Your task to perform on an android device: open app "Upside-Cash back on gas & food" Image 0: 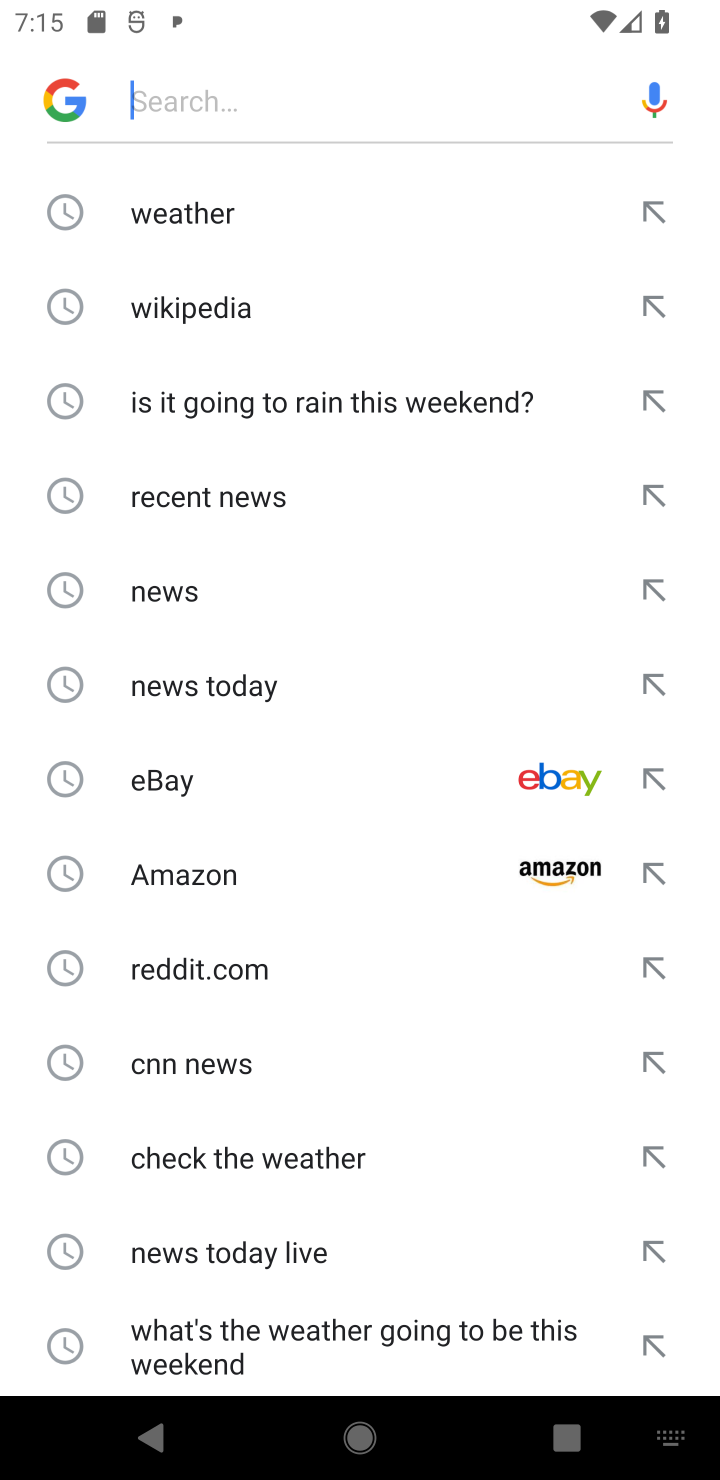
Step 0: press home button
Your task to perform on an android device: open app "Upside-Cash back on gas & food" Image 1: 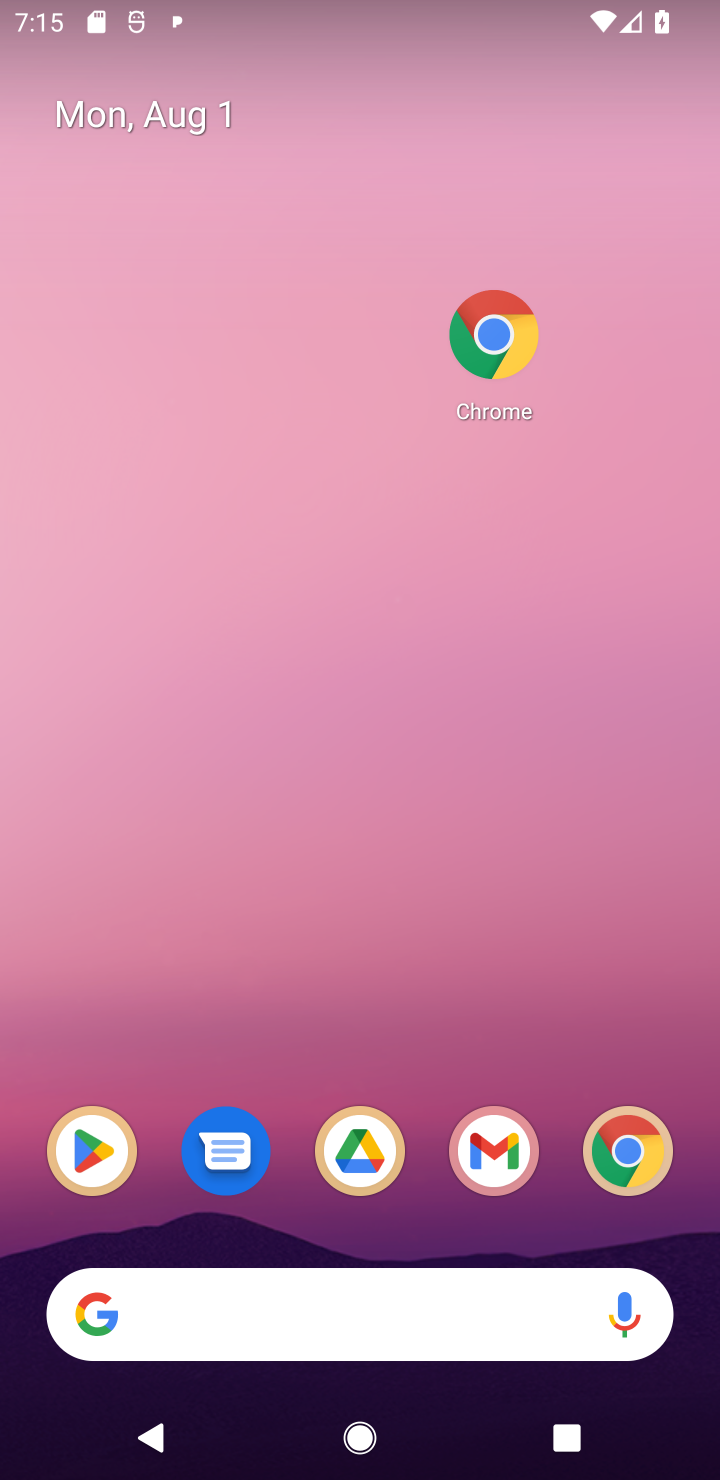
Step 1: click (76, 1152)
Your task to perform on an android device: open app "Upside-Cash back on gas & food" Image 2: 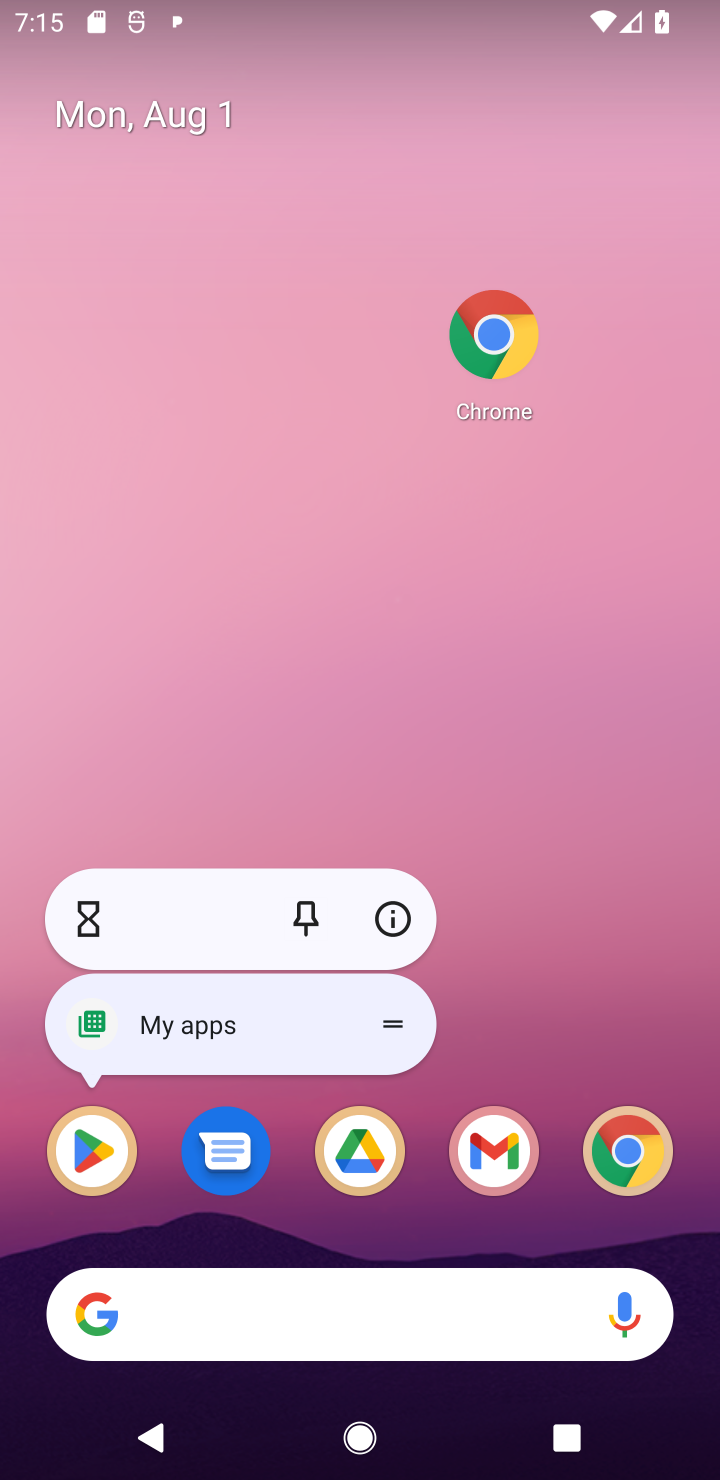
Step 2: click (91, 1164)
Your task to perform on an android device: open app "Upside-Cash back on gas & food" Image 3: 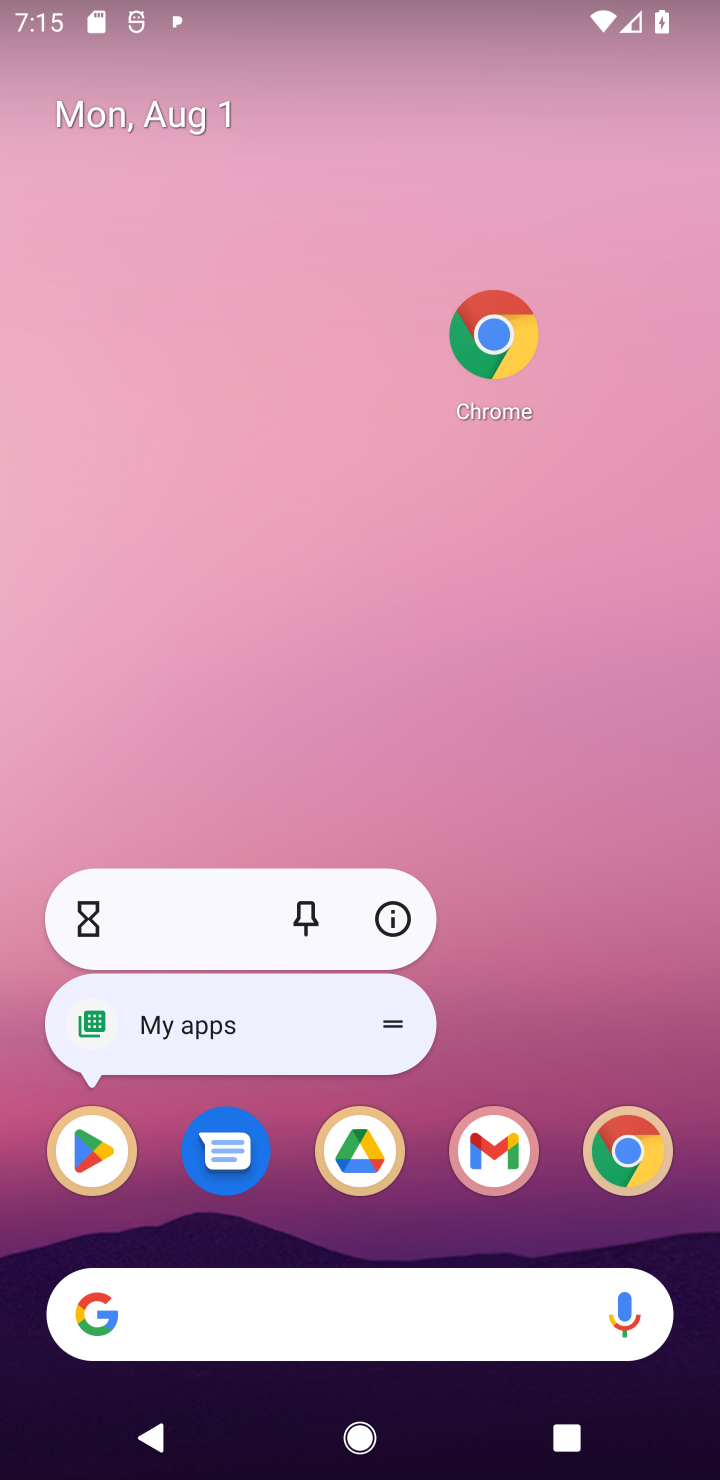
Step 3: click (91, 1166)
Your task to perform on an android device: open app "Upside-Cash back on gas & food" Image 4: 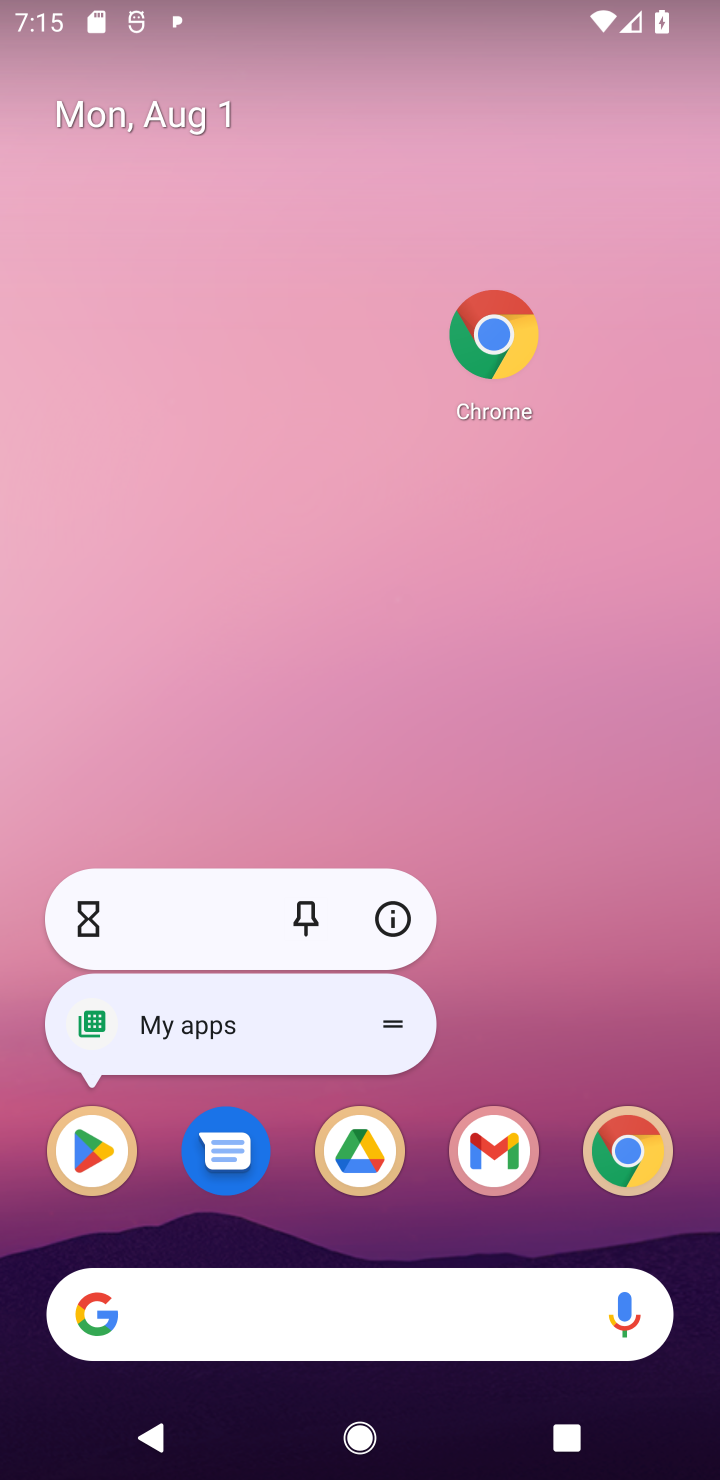
Step 4: click (91, 1166)
Your task to perform on an android device: open app "Upside-Cash back on gas & food" Image 5: 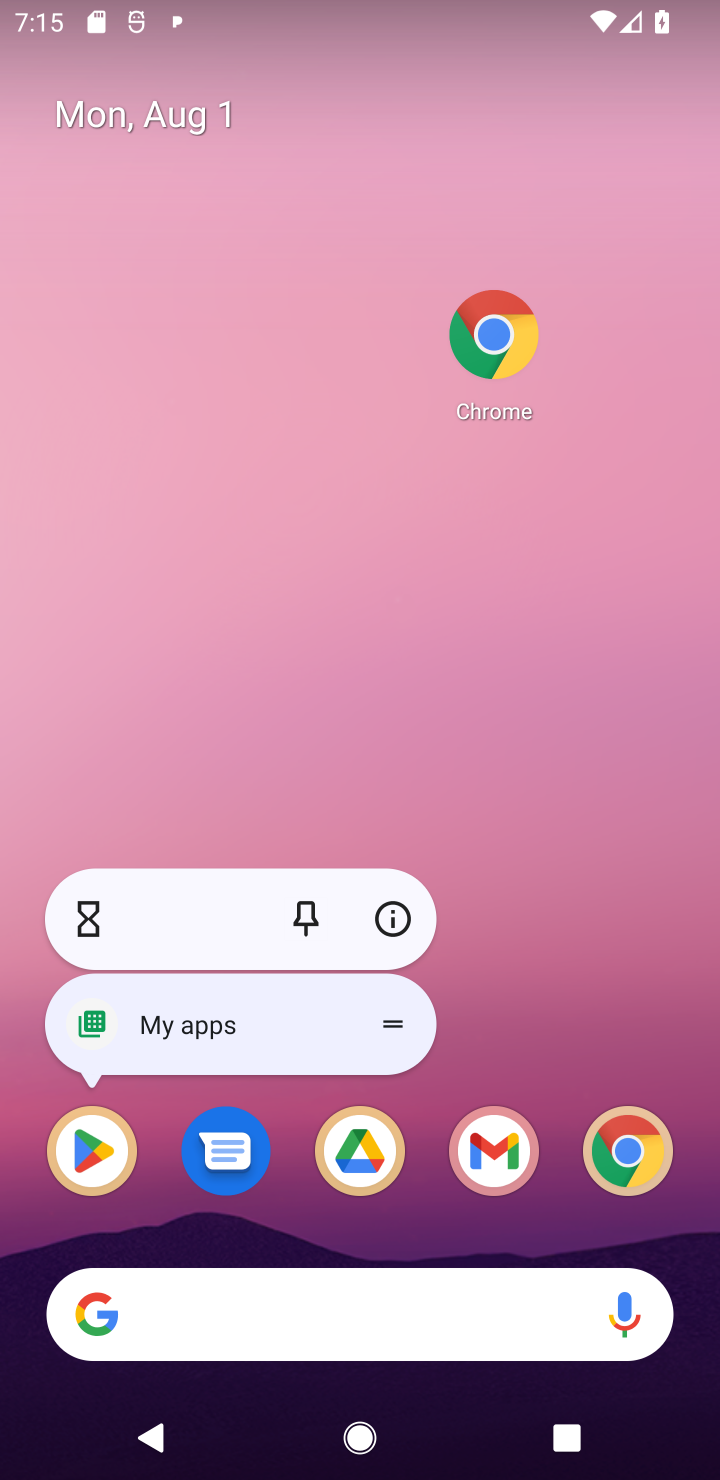
Step 5: click (91, 1166)
Your task to perform on an android device: open app "Upside-Cash back on gas & food" Image 6: 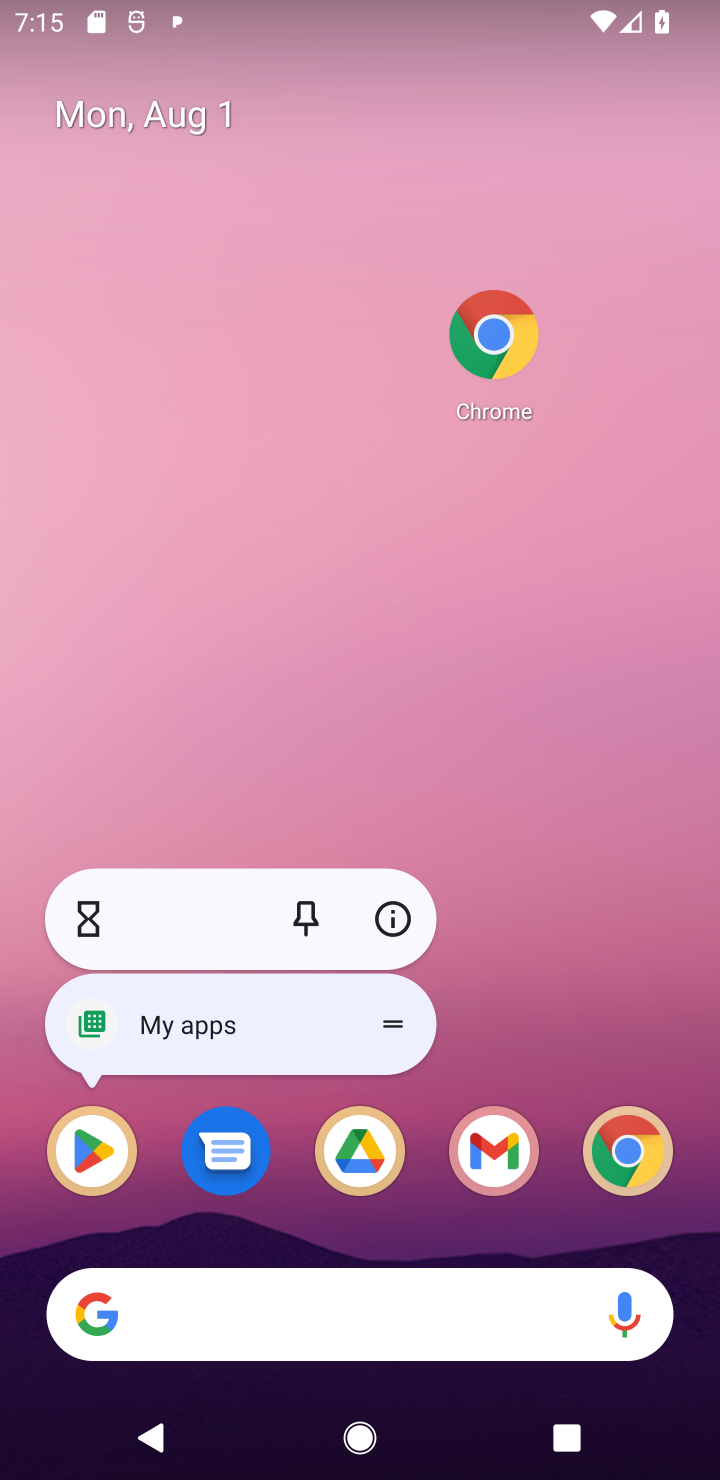
Step 6: click (91, 1167)
Your task to perform on an android device: open app "Upside-Cash back on gas & food" Image 7: 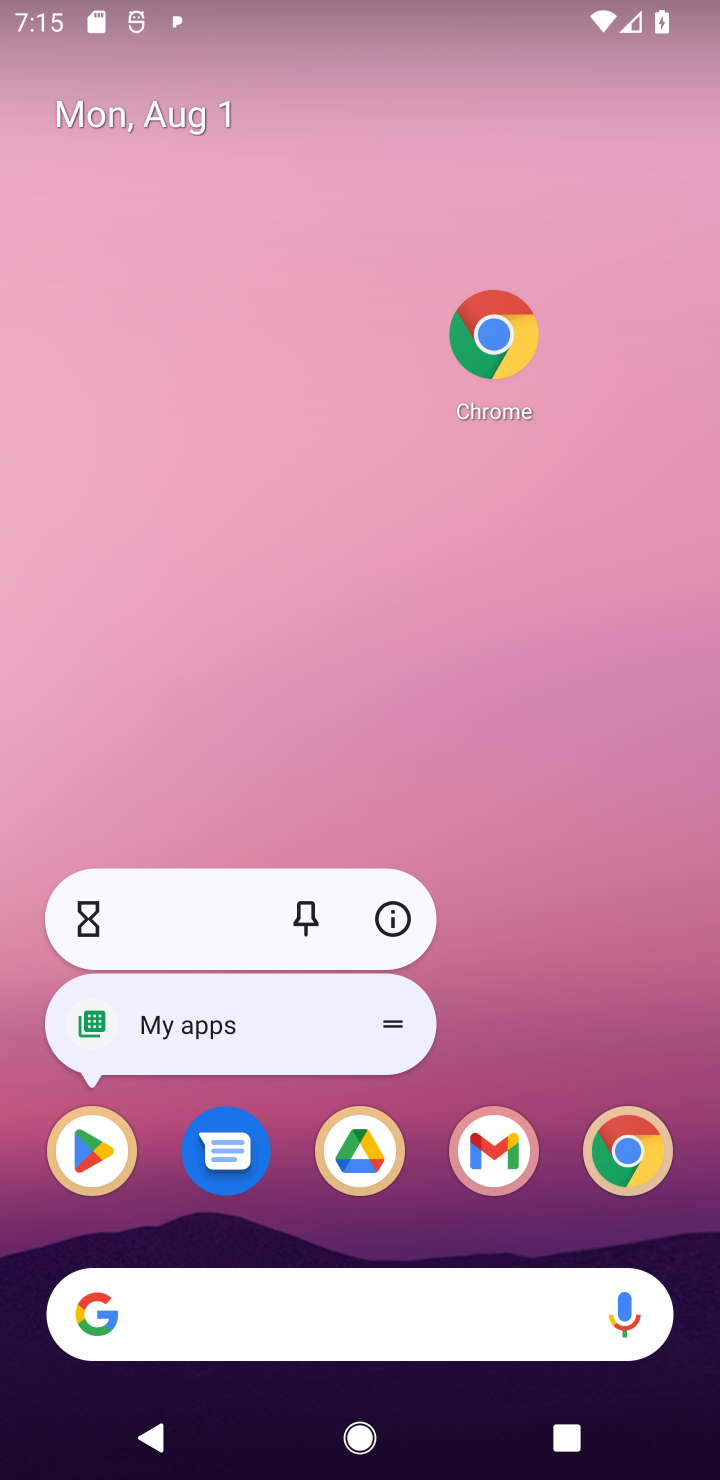
Step 7: click (83, 1151)
Your task to perform on an android device: open app "Upside-Cash back on gas & food" Image 8: 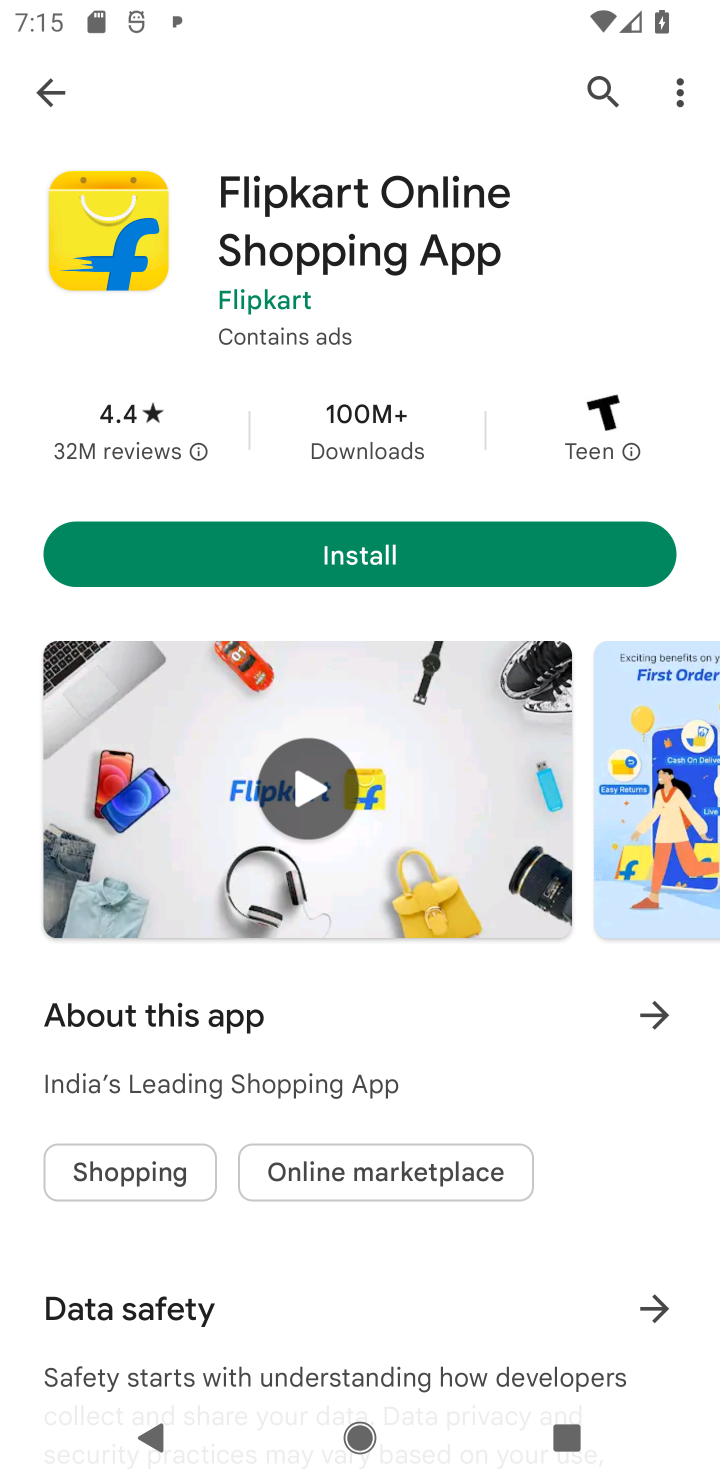
Step 8: click (597, 87)
Your task to perform on an android device: open app "Upside-Cash back on gas & food" Image 9: 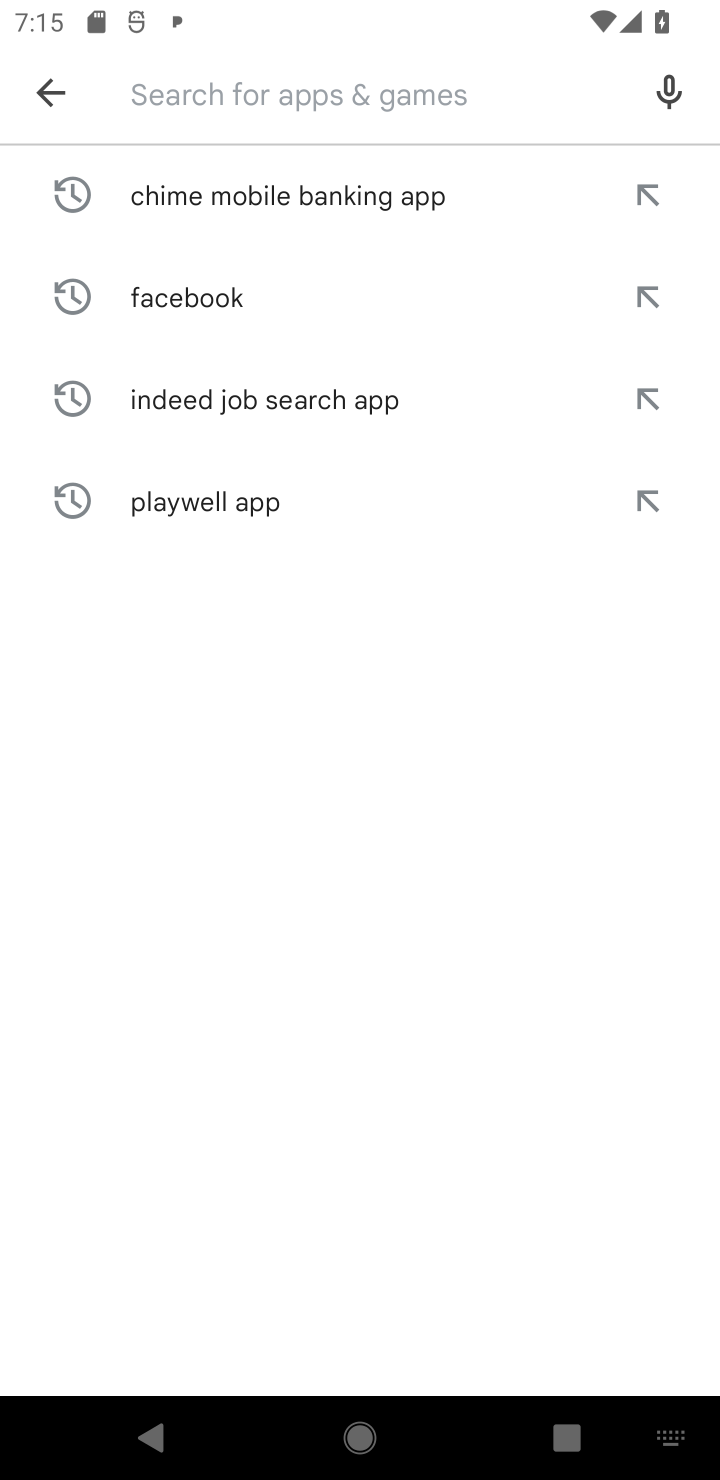
Step 9: type "Upside-Cash back on gas & food"
Your task to perform on an android device: open app "Upside-Cash back on gas & food" Image 10: 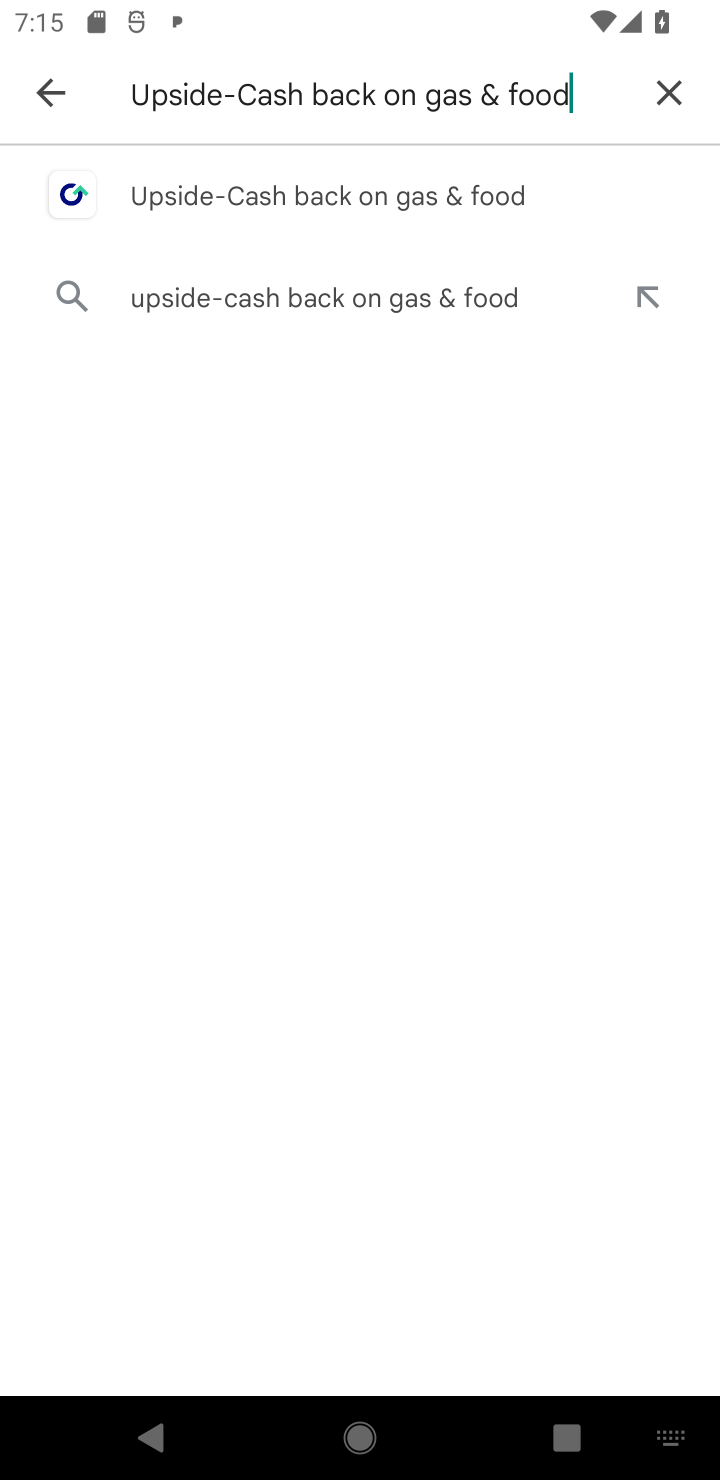
Step 10: click (319, 211)
Your task to perform on an android device: open app "Upside-Cash back on gas & food" Image 11: 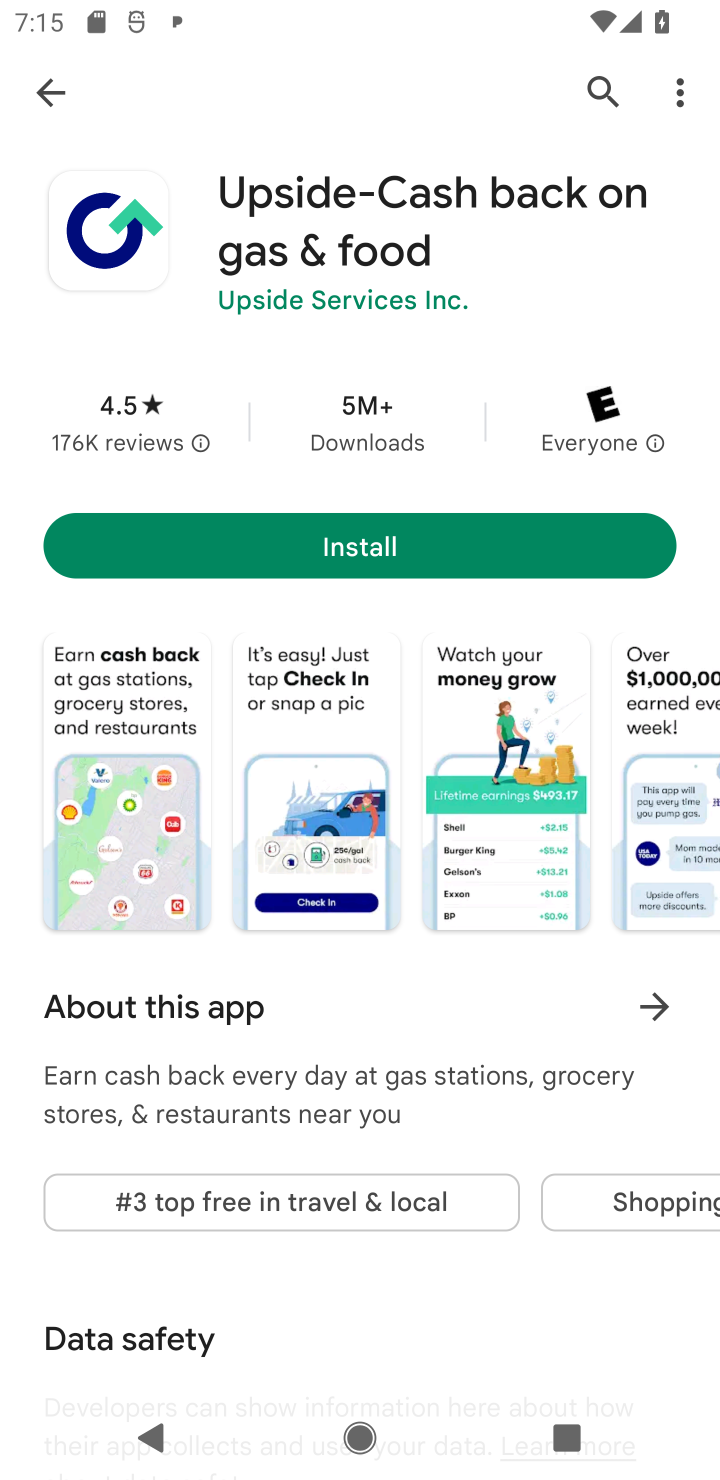
Step 11: task complete